Your task to perform on an android device: change notification settings in the gmail app Image 0: 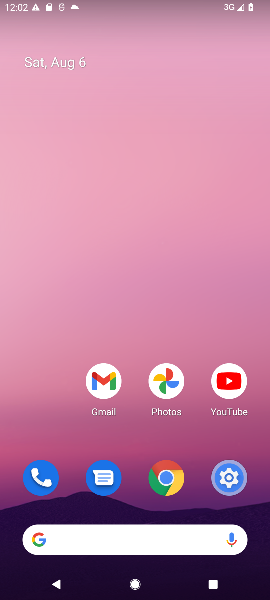
Step 0: click (109, 389)
Your task to perform on an android device: change notification settings in the gmail app Image 1: 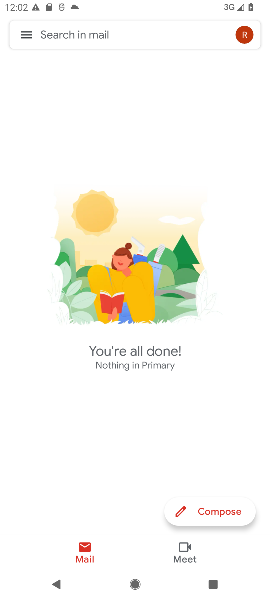
Step 1: click (22, 41)
Your task to perform on an android device: change notification settings in the gmail app Image 2: 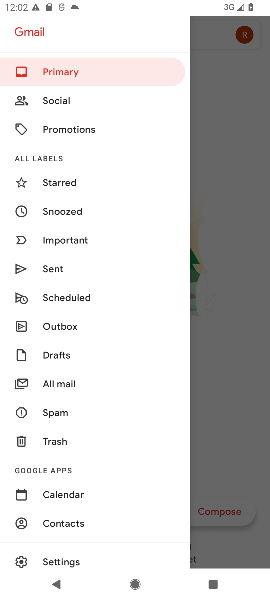
Step 2: click (72, 565)
Your task to perform on an android device: change notification settings in the gmail app Image 3: 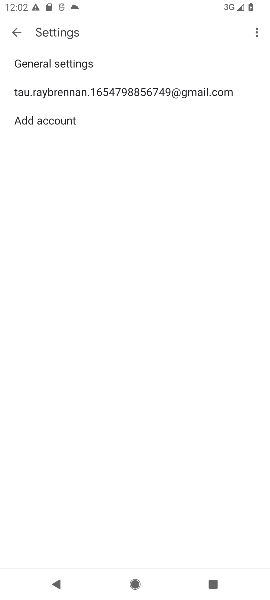
Step 3: click (20, 93)
Your task to perform on an android device: change notification settings in the gmail app Image 4: 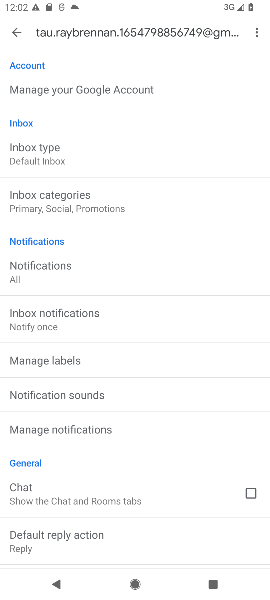
Step 4: click (31, 275)
Your task to perform on an android device: change notification settings in the gmail app Image 5: 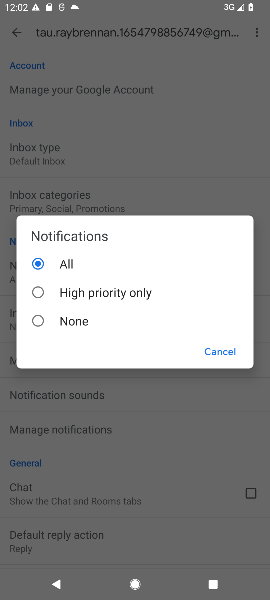
Step 5: click (50, 290)
Your task to perform on an android device: change notification settings in the gmail app Image 6: 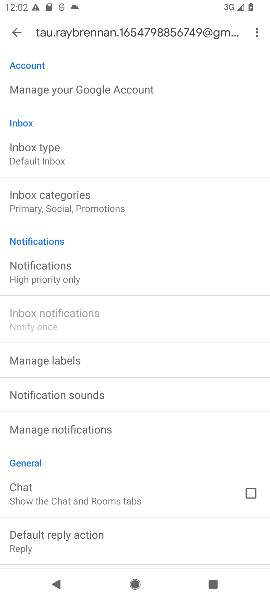
Step 6: task complete